Your task to perform on an android device: find photos in the google photos app Image 0: 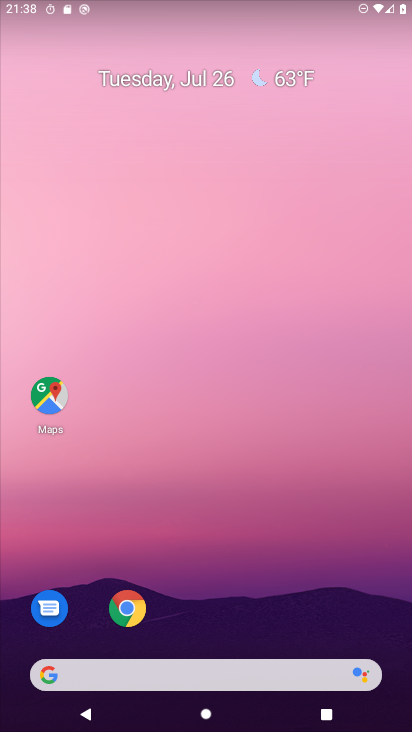
Step 0: drag from (131, 250) to (163, 129)
Your task to perform on an android device: find photos in the google photos app Image 1: 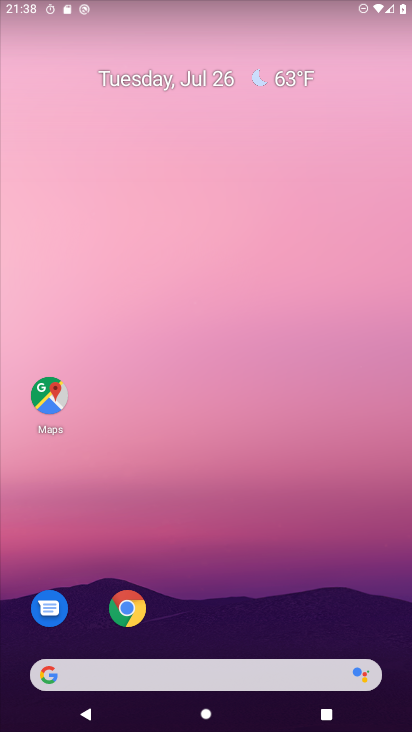
Step 1: drag from (51, 678) to (269, 53)
Your task to perform on an android device: find photos in the google photos app Image 2: 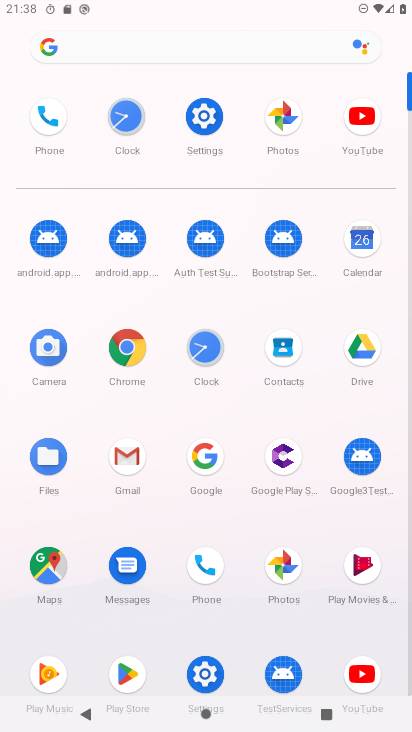
Step 2: click (278, 590)
Your task to perform on an android device: find photos in the google photos app Image 3: 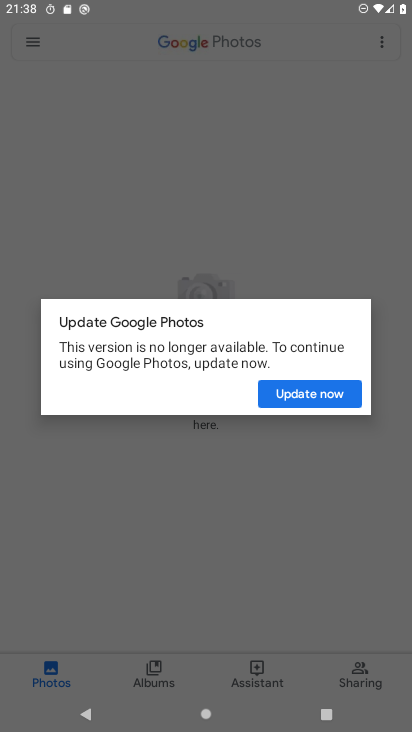
Step 3: click (290, 398)
Your task to perform on an android device: find photos in the google photos app Image 4: 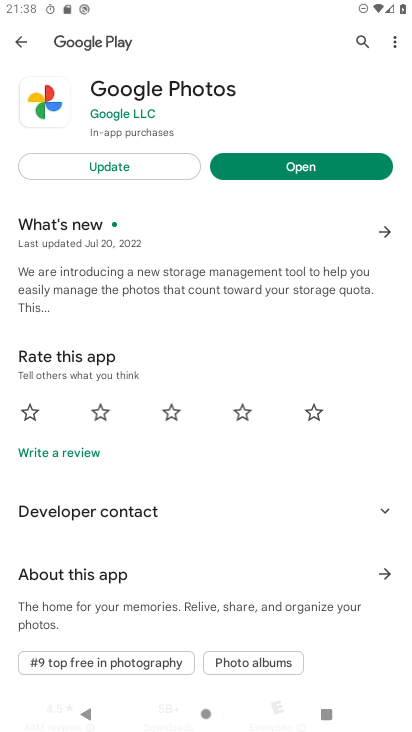
Step 4: click (299, 170)
Your task to perform on an android device: find photos in the google photos app Image 5: 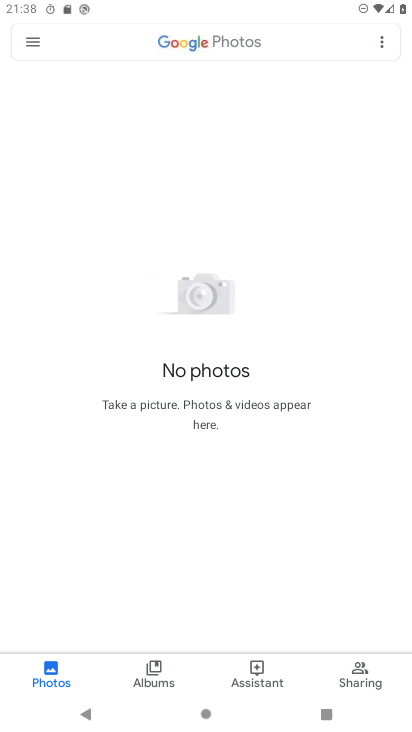
Step 5: task complete